Your task to perform on an android device: Open Chrome and go to settings Image 0: 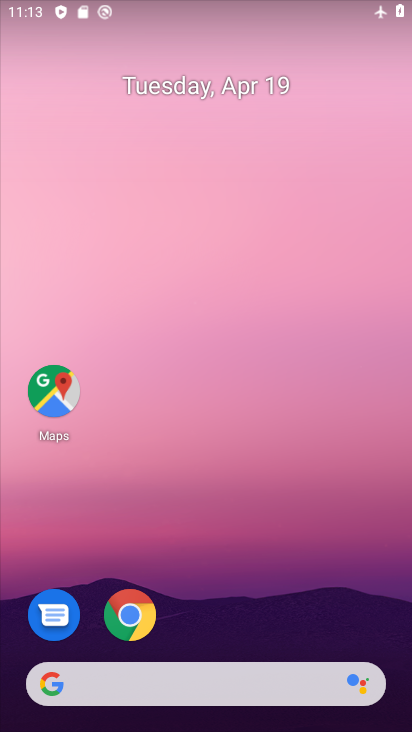
Step 0: click (119, 623)
Your task to perform on an android device: Open Chrome and go to settings Image 1: 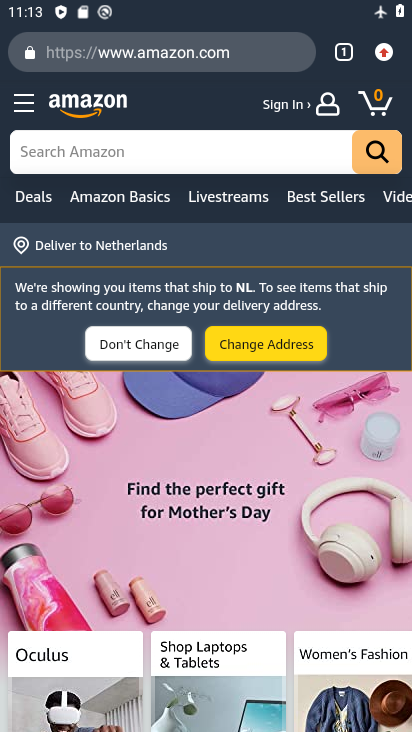
Step 1: task complete